Your task to perform on an android device: Toggle the flashlight Image 0: 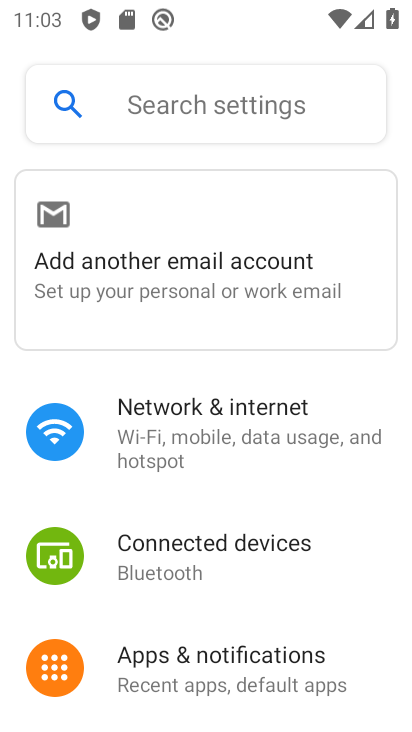
Step 0: press home button
Your task to perform on an android device: Toggle the flashlight Image 1: 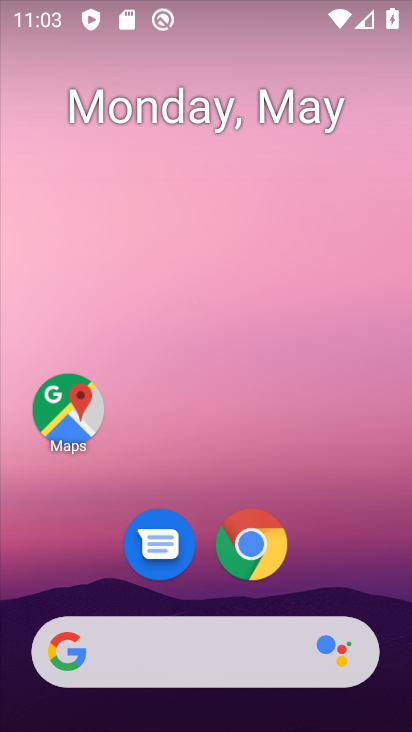
Step 1: task complete